Your task to perform on an android device: empty trash in the gmail app Image 0: 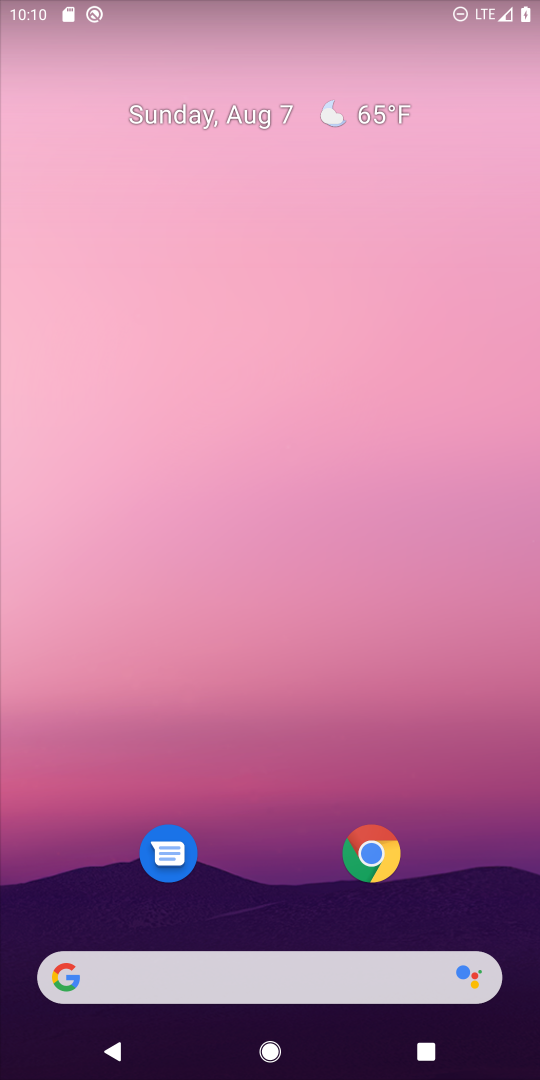
Step 0: drag from (325, 936) to (245, 184)
Your task to perform on an android device: empty trash in the gmail app Image 1: 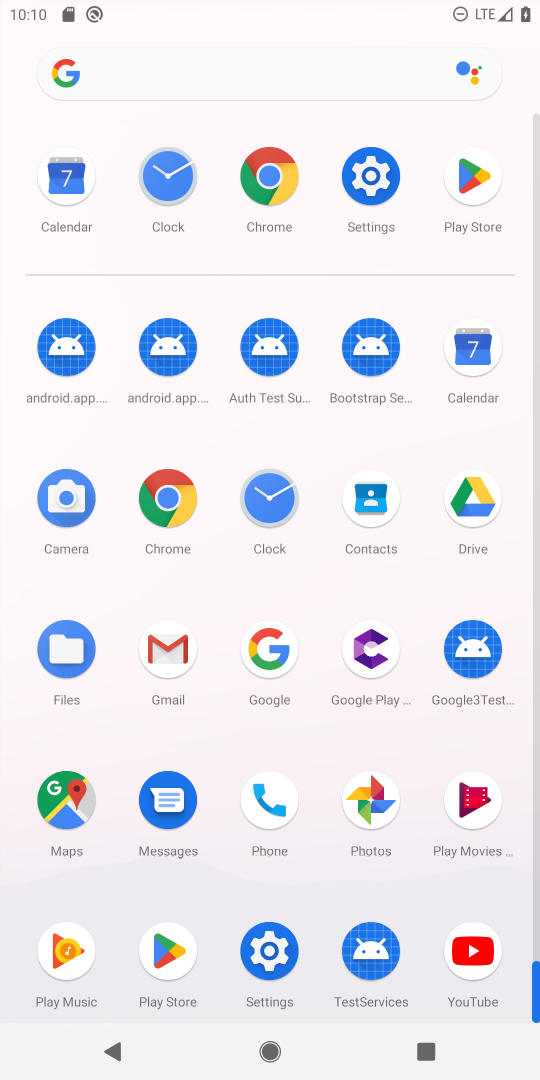
Step 1: click (171, 642)
Your task to perform on an android device: empty trash in the gmail app Image 2: 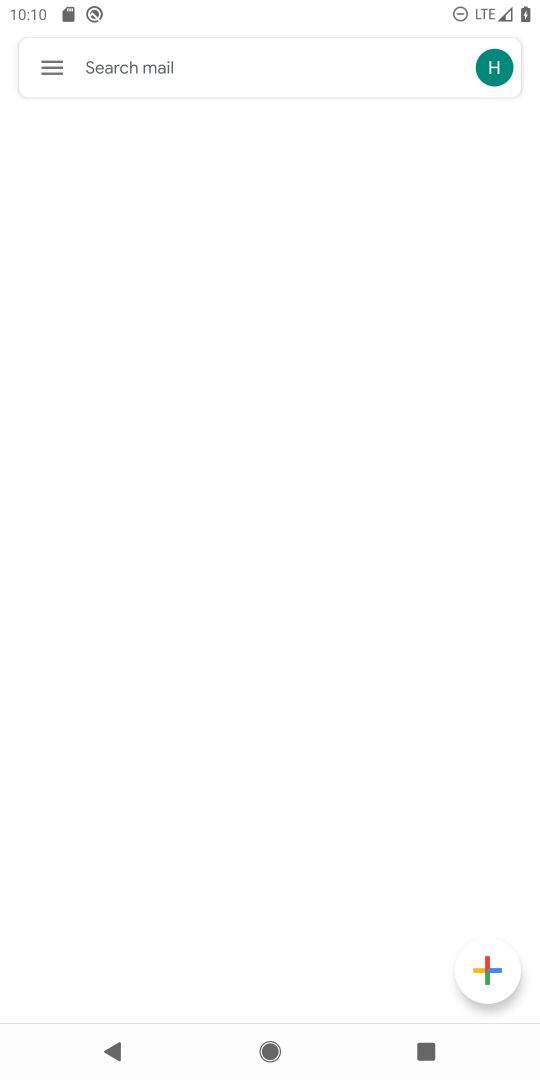
Step 2: click (55, 56)
Your task to perform on an android device: empty trash in the gmail app Image 3: 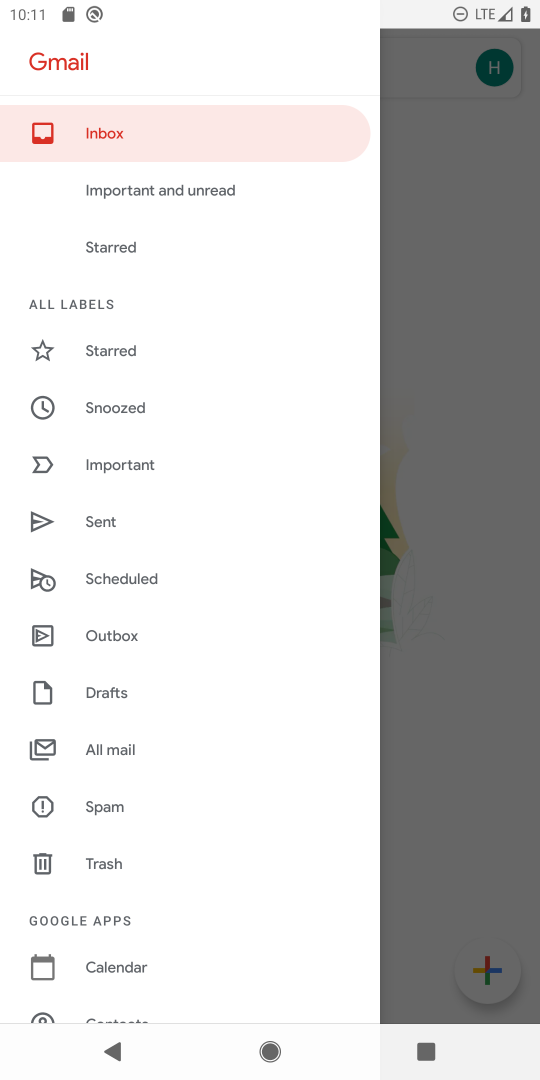
Step 3: click (117, 860)
Your task to perform on an android device: empty trash in the gmail app Image 4: 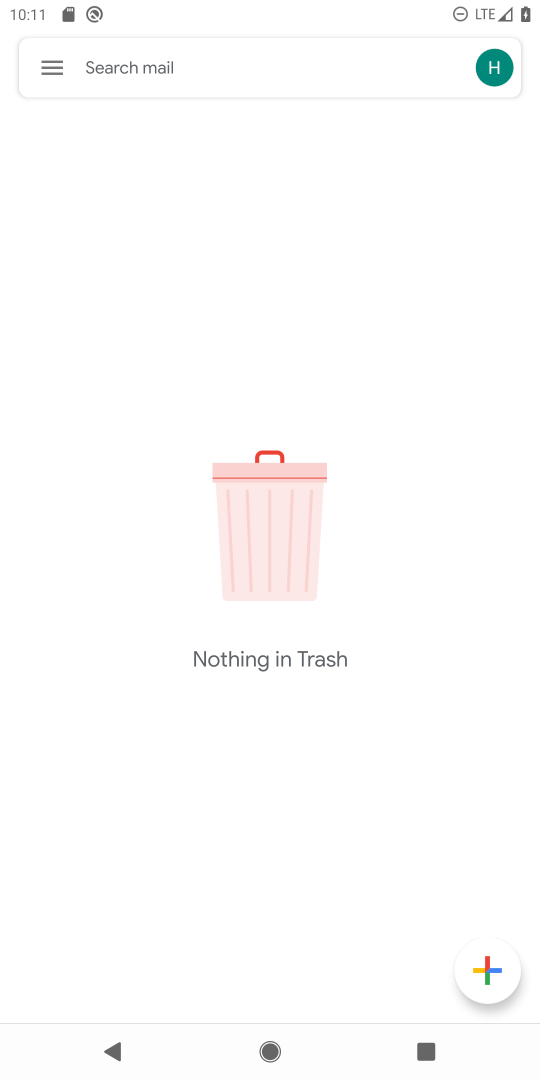
Step 4: task complete